Your task to perform on an android device: Search for "usb-a" on walmart, select the first entry, add it to the cart, then select checkout. Image 0: 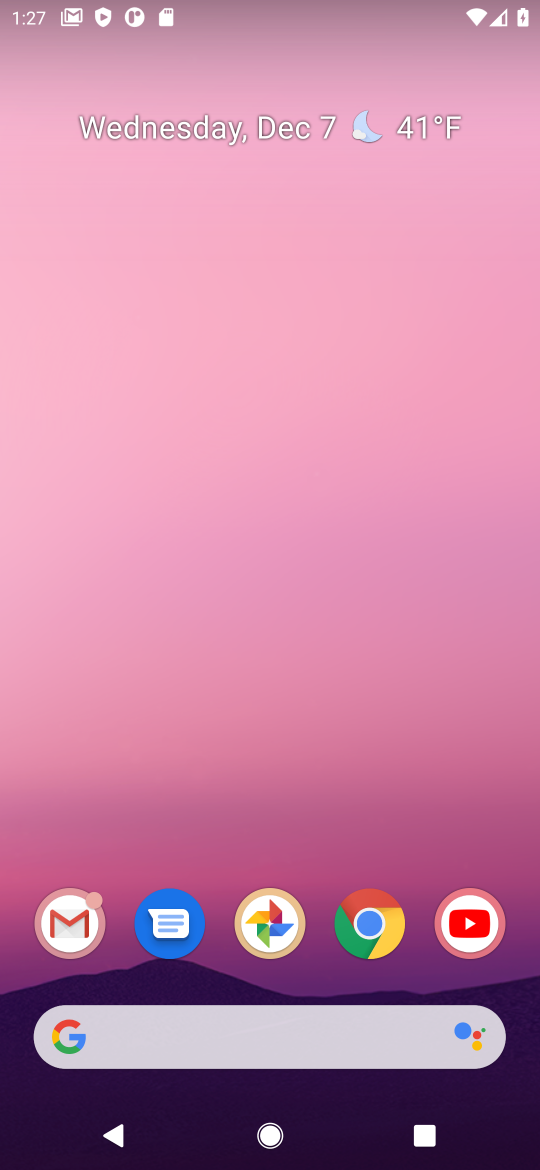
Step 0: click (364, 944)
Your task to perform on an android device: Search for "usb-a" on walmart, select the first entry, add it to the cart, then select checkout. Image 1: 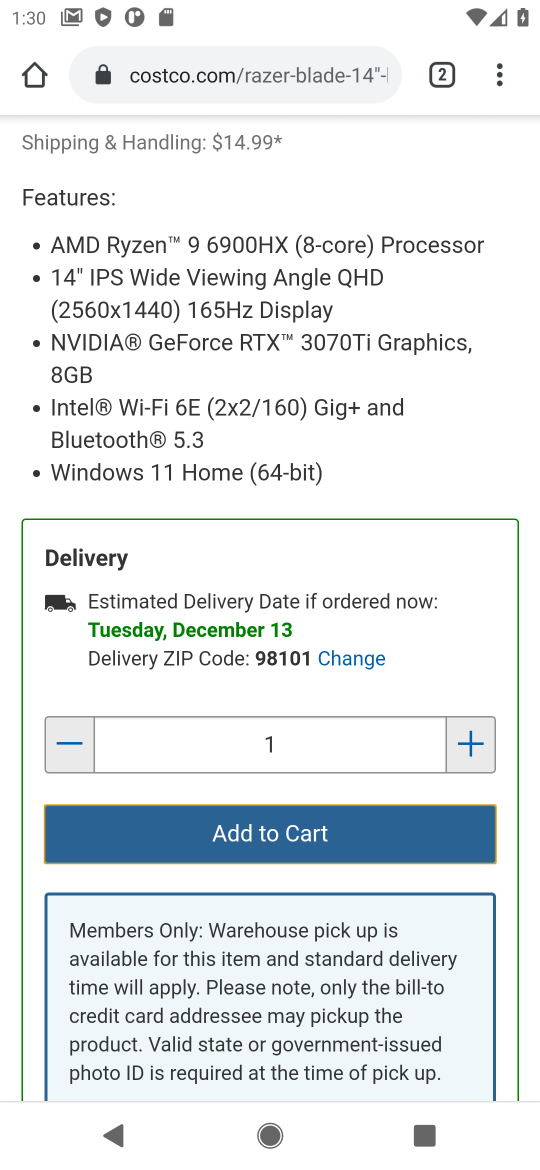
Step 1: click (234, 77)
Your task to perform on an android device: Search for "usb-a" on walmart, select the first entry, add it to the cart, then select checkout. Image 2: 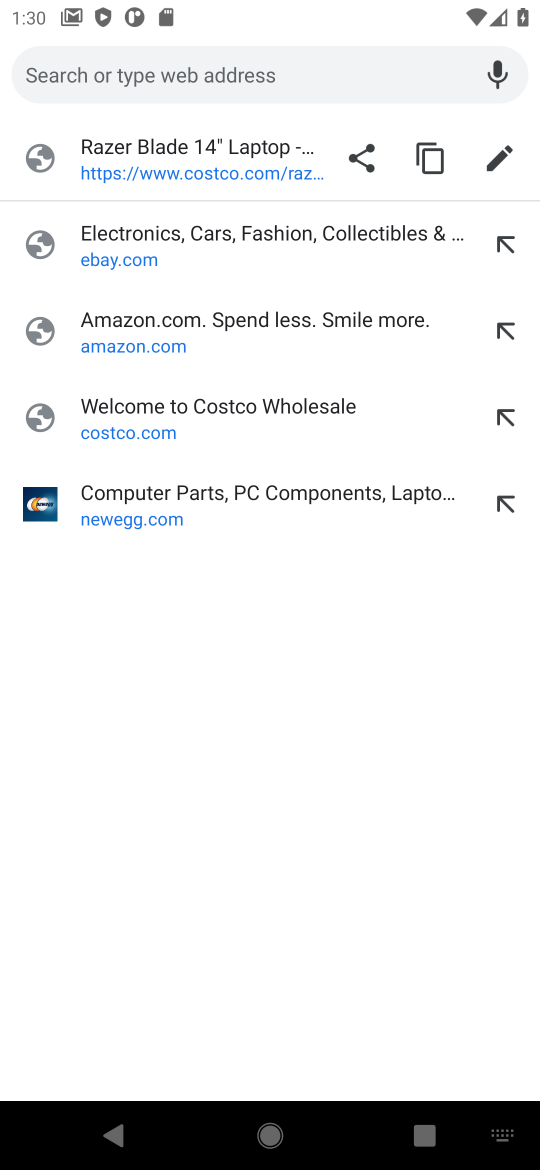
Step 2: type "walmart"
Your task to perform on an android device: Search for "usb-a" on walmart, select the first entry, add it to the cart, then select checkout. Image 3: 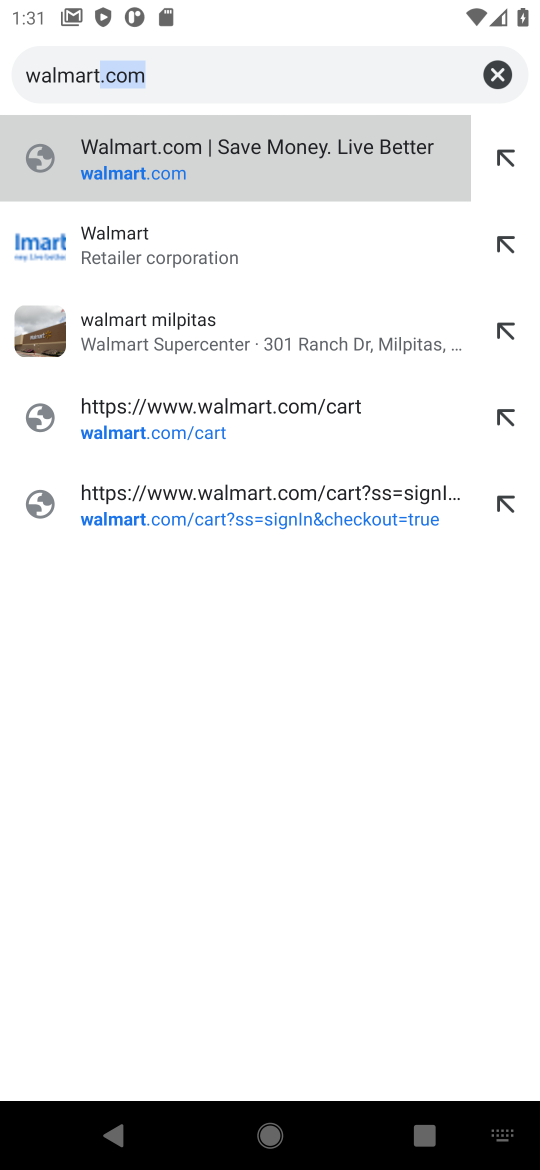
Step 3: click (214, 161)
Your task to perform on an android device: Search for "usb-a" on walmart, select the first entry, add it to the cart, then select checkout. Image 4: 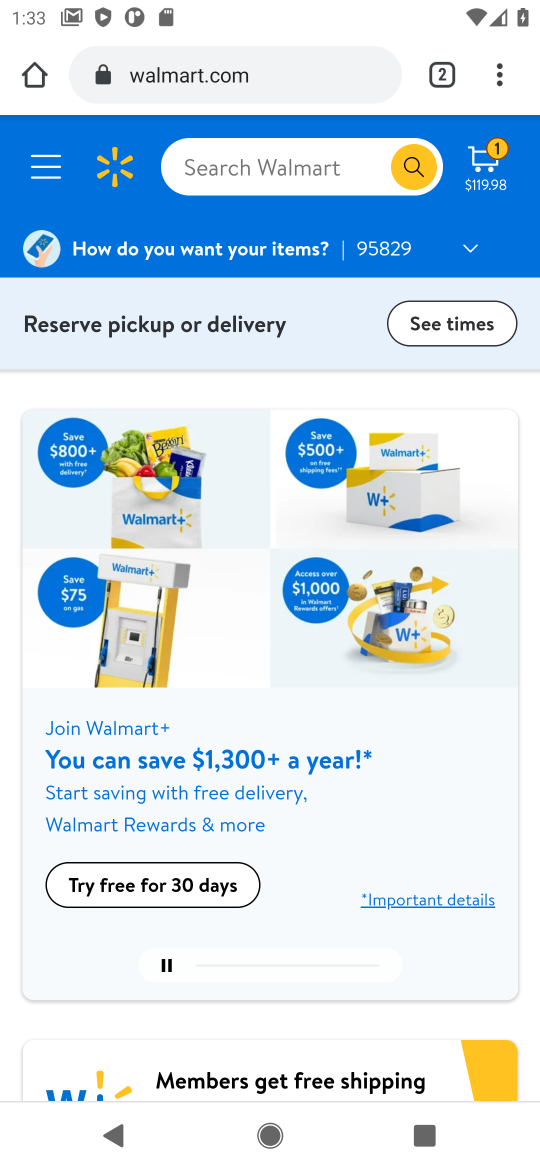
Step 4: click (234, 156)
Your task to perform on an android device: Search for "usb-a" on walmart, select the first entry, add it to the cart, then select checkout. Image 5: 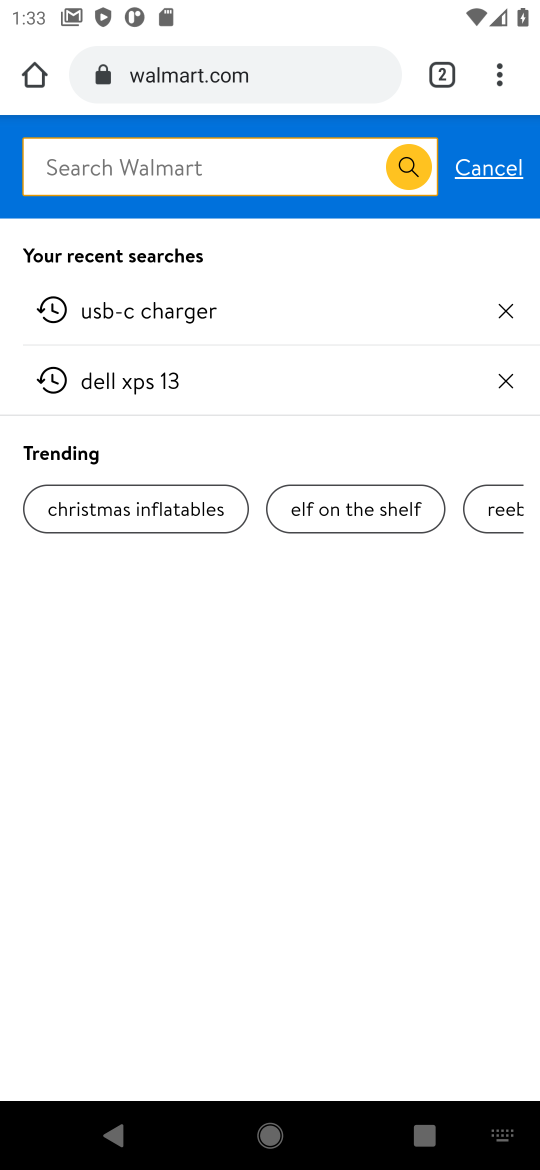
Step 5: type "usb-a"
Your task to perform on an android device: Search for "usb-a" on walmart, select the first entry, add it to the cart, then select checkout. Image 6: 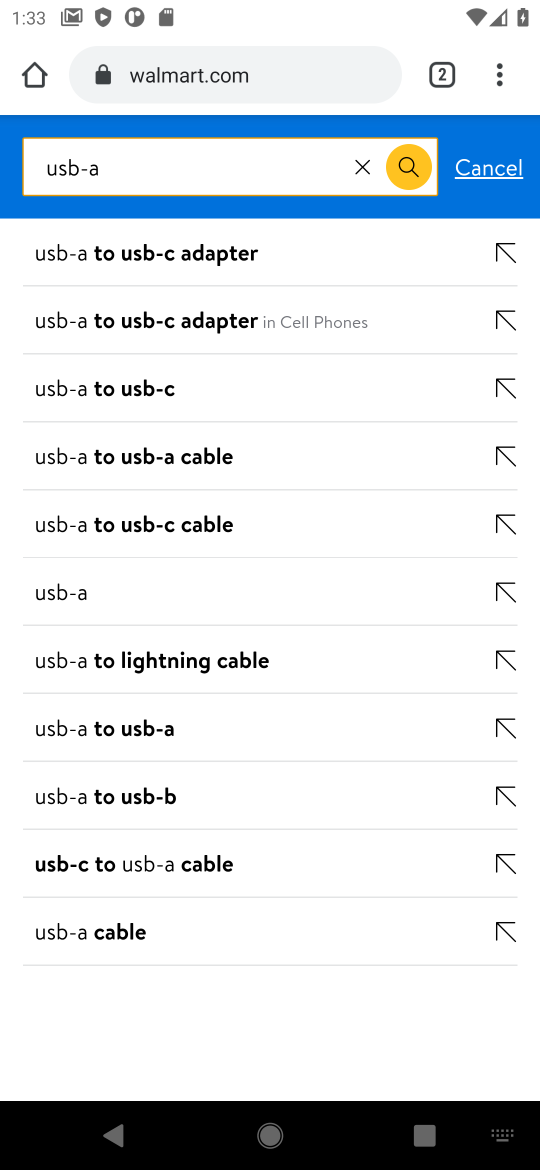
Step 6: click (246, 254)
Your task to perform on an android device: Search for "usb-a" on walmart, select the first entry, add it to the cart, then select checkout. Image 7: 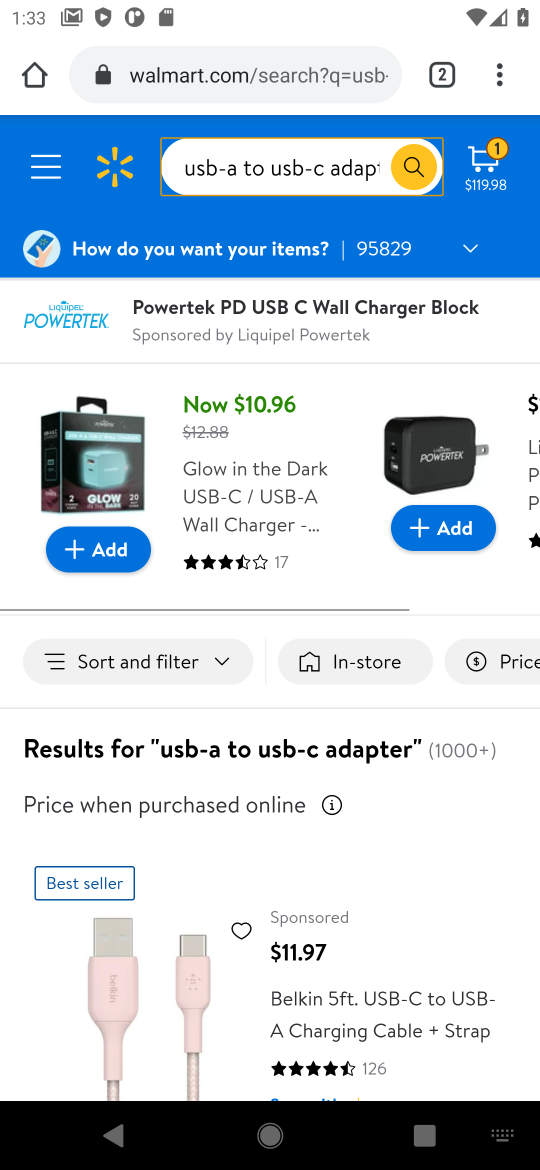
Step 7: click (177, 955)
Your task to perform on an android device: Search for "usb-a" on walmart, select the first entry, add it to the cart, then select checkout. Image 8: 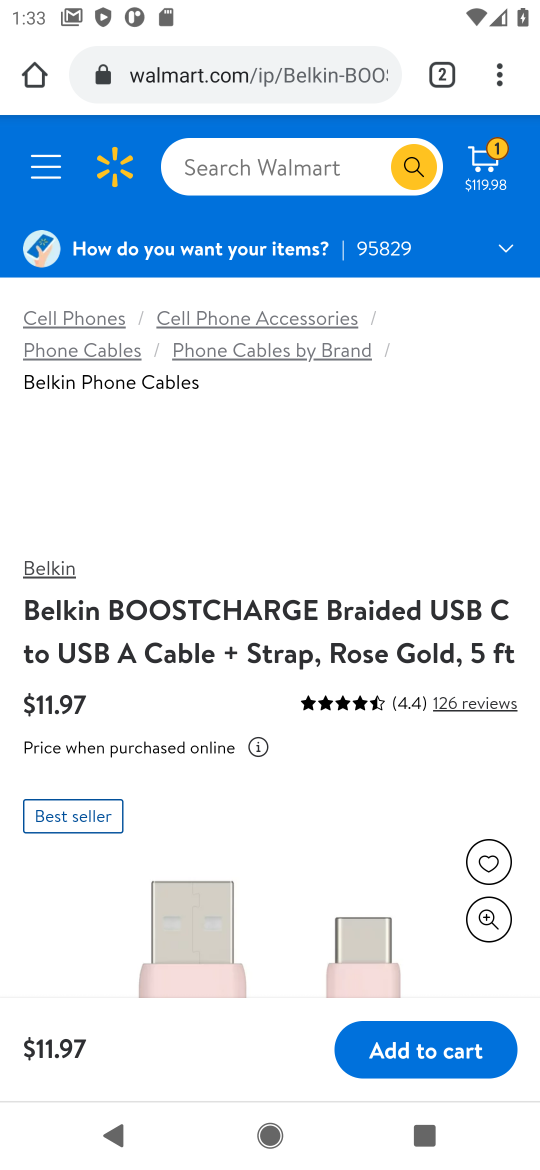
Step 8: click (410, 1067)
Your task to perform on an android device: Search for "usb-a" on walmart, select the first entry, add it to the cart, then select checkout. Image 9: 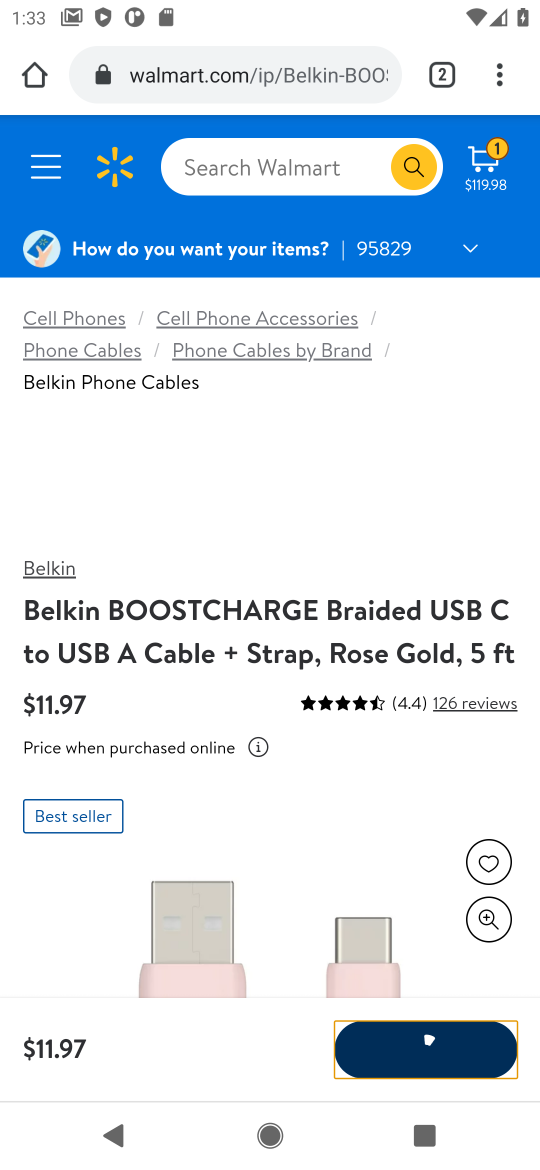
Step 9: click (410, 1067)
Your task to perform on an android device: Search for "usb-a" on walmart, select the first entry, add it to the cart, then select checkout. Image 10: 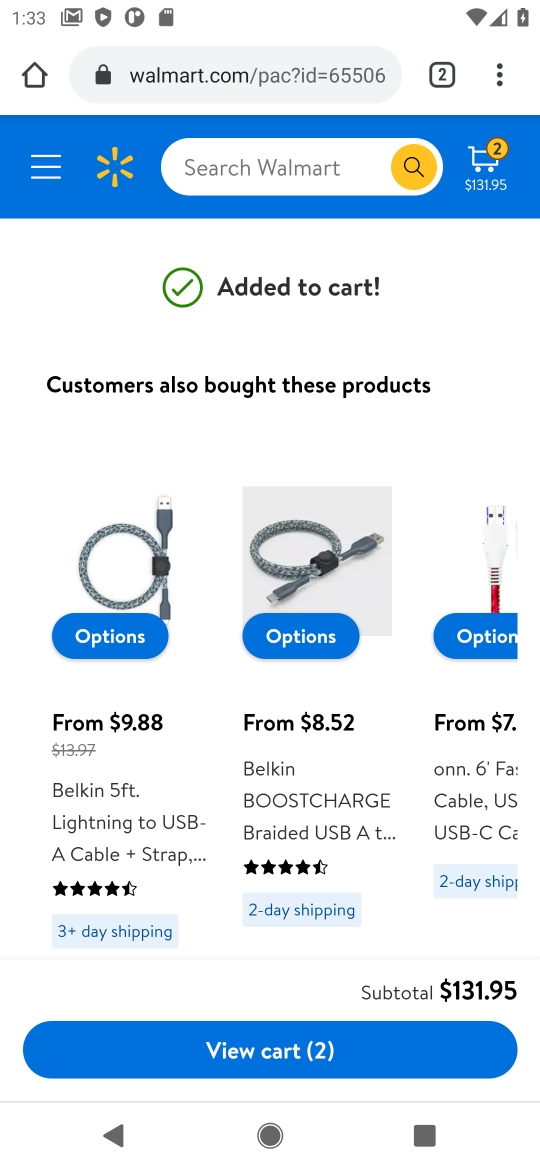
Step 10: click (482, 157)
Your task to perform on an android device: Search for "usb-a" on walmart, select the first entry, add it to the cart, then select checkout. Image 11: 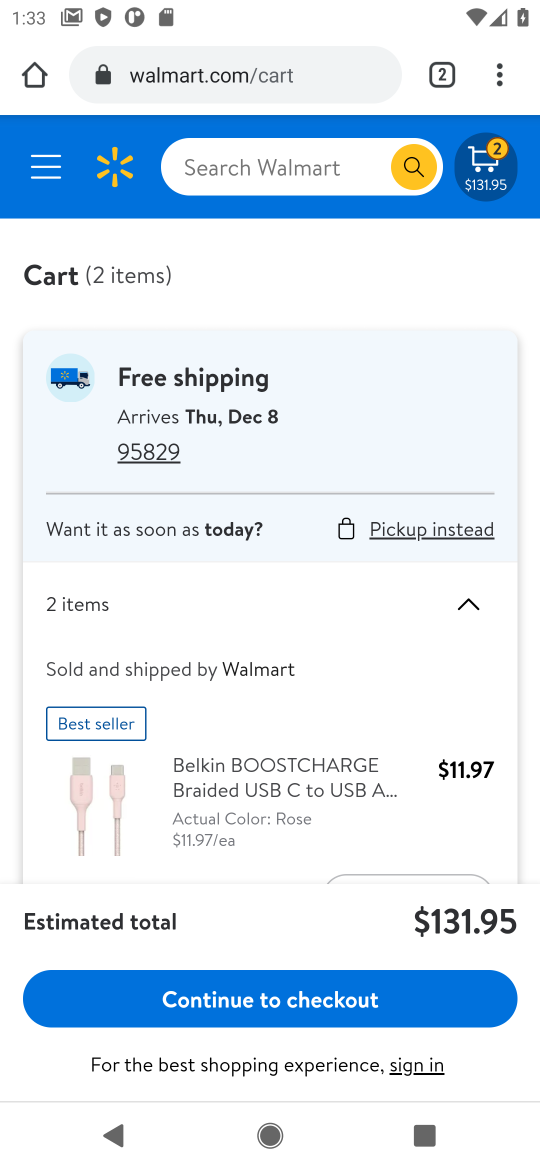
Step 11: click (309, 1003)
Your task to perform on an android device: Search for "usb-a" on walmart, select the first entry, add it to the cart, then select checkout. Image 12: 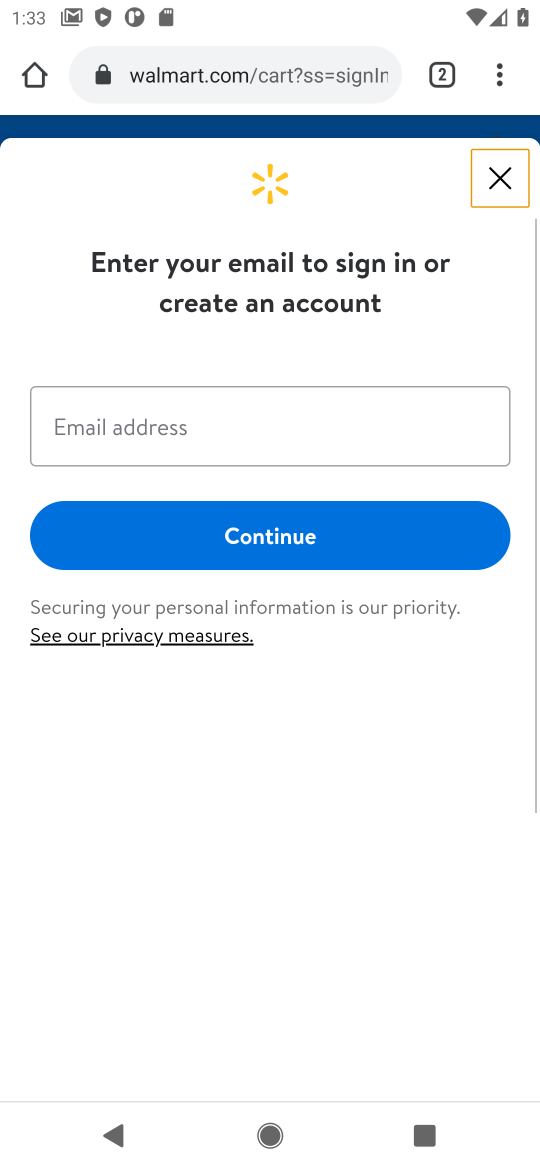
Step 12: task complete